Your task to perform on an android device: delete location history Image 0: 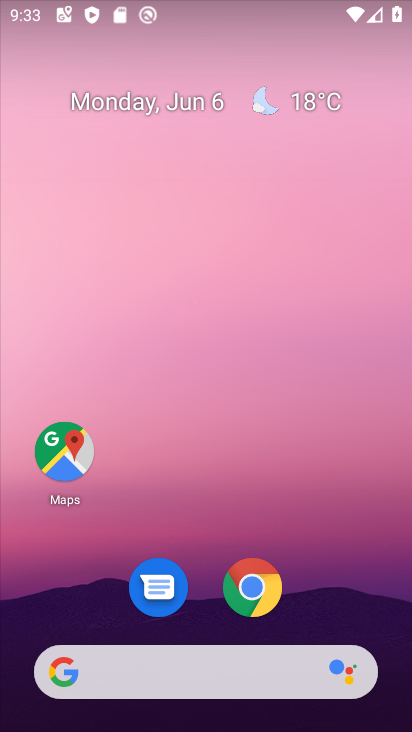
Step 0: drag from (319, 610) to (305, 115)
Your task to perform on an android device: delete location history Image 1: 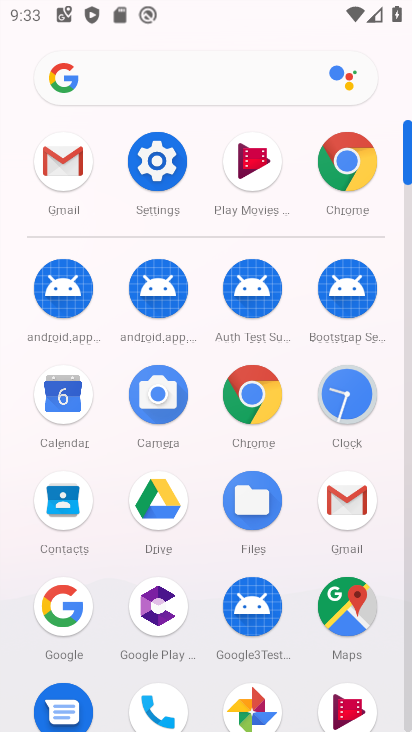
Step 1: click (345, 598)
Your task to perform on an android device: delete location history Image 2: 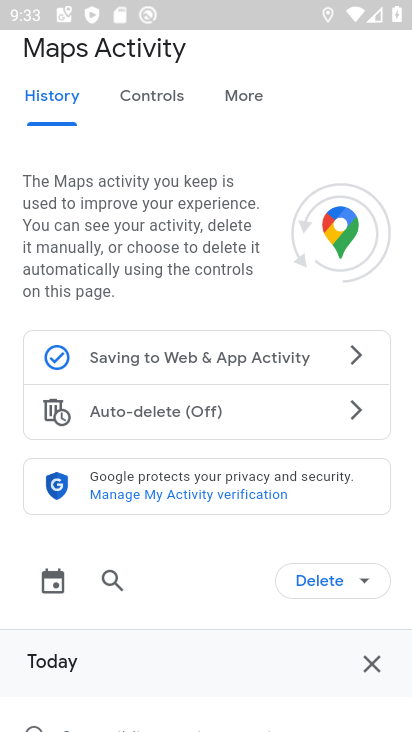
Step 2: click (338, 595)
Your task to perform on an android device: delete location history Image 3: 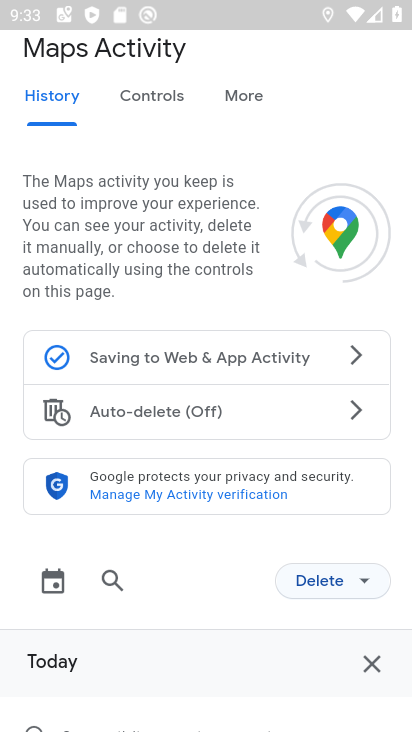
Step 3: click (339, 582)
Your task to perform on an android device: delete location history Image 4: 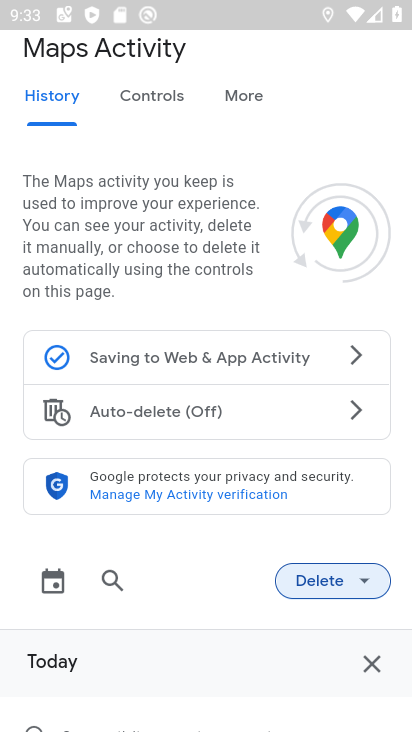
Step 4: click (339, 582)
Your task to perform on an android device: delete location history Image 5: 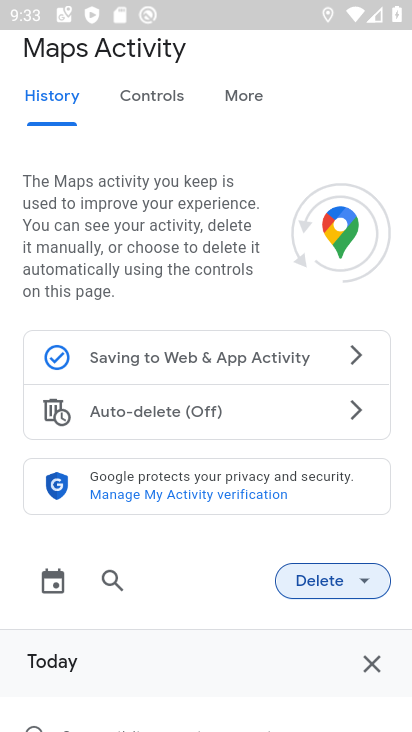
Step 5: click (339, 582)
Your task to perform on an android device: delete location history Image 6: 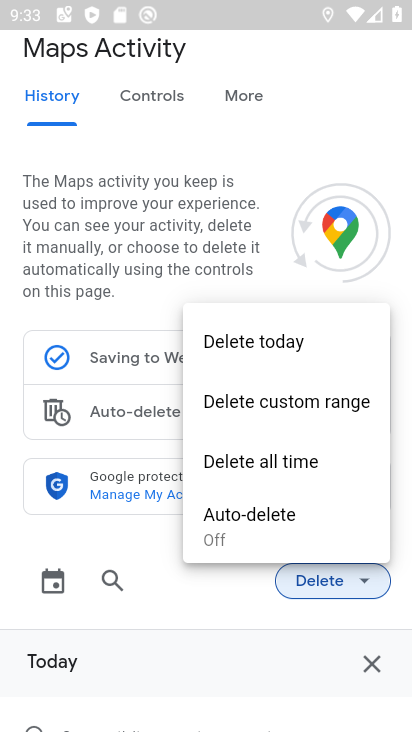
Step 6: click (266, 463)
Your task to perform on an android device: delete location history Image 7: 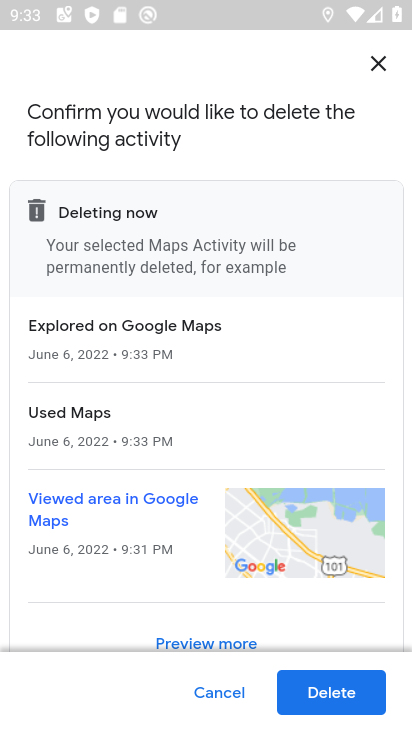
Step 7: click (350, 711)
Your task to perform on an android device: delete location history Image 8: 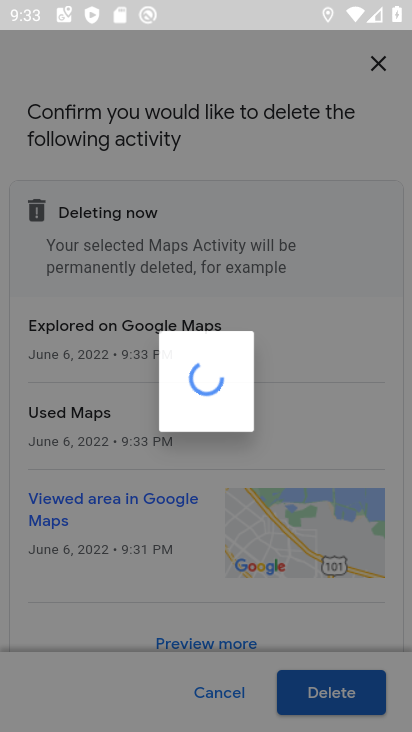
Step 8: click (356, 689)
Your task to perform on an android device: delete location history Image 9: 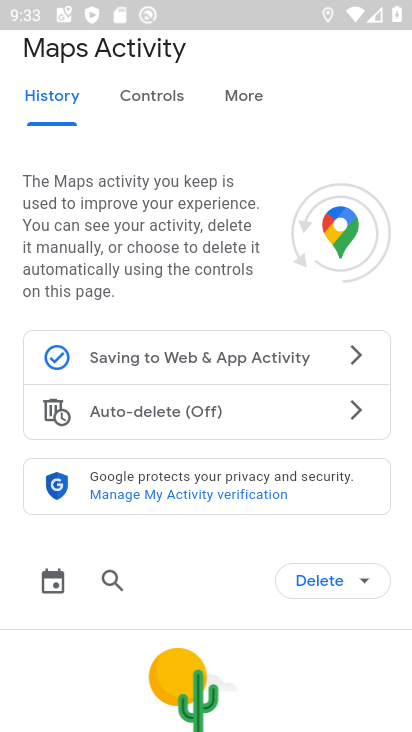
Step 9: task complete